Your task to perform on an android device: Do I have any events this weekend? Image 0: 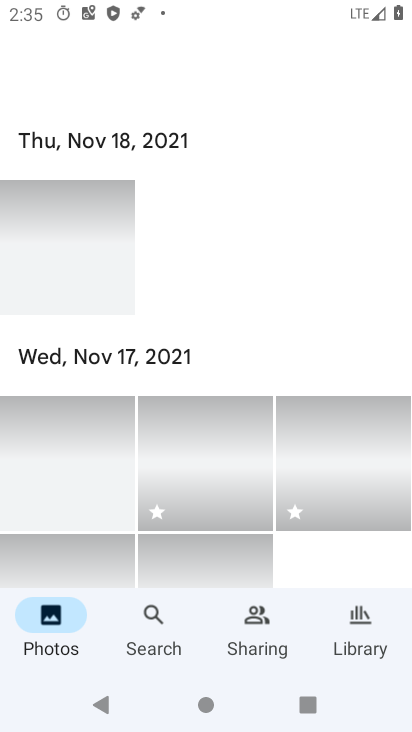
Step 0: drag from (246, 595) to (289, 142)
Your task to perform on an android device: Do I have any events this weekend? Image 1: 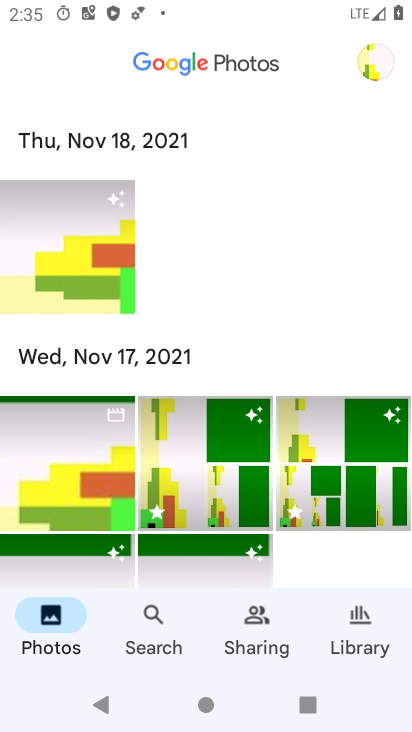
Step 1: press home button
Your task to perform on an android device: Do I have any events this weekend? Image 2: 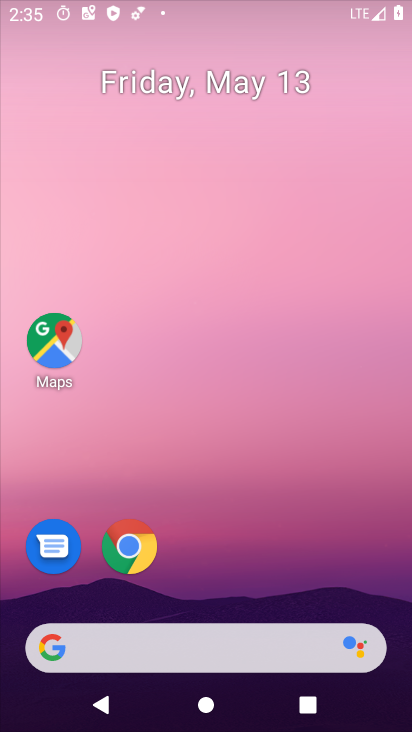
Step 2: drag from (239, 486) to (294, 101)
Your task to perform on an android device: Do I have any events this weekend? Image 3: 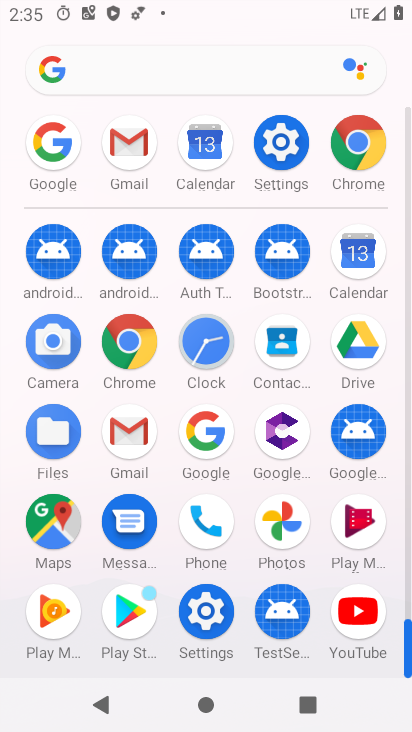
Step 3: click (374, 266)
Your task to perform on an android device: Do I have any events this weekend? Image 4: 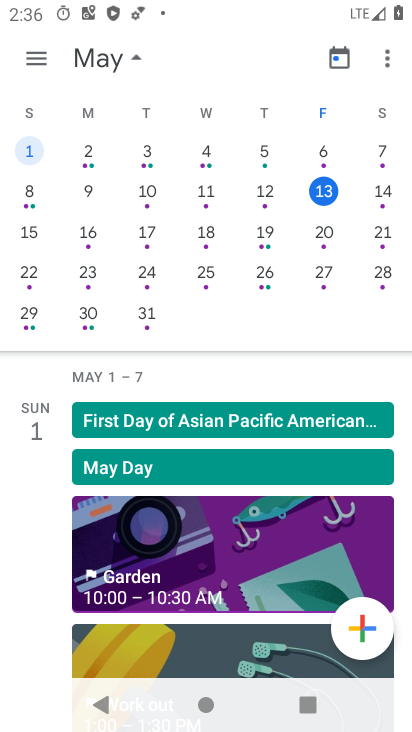
Step 4: click (380, 209)
Your task to perform on an android device: Do I have any events this weekend? Image 5: 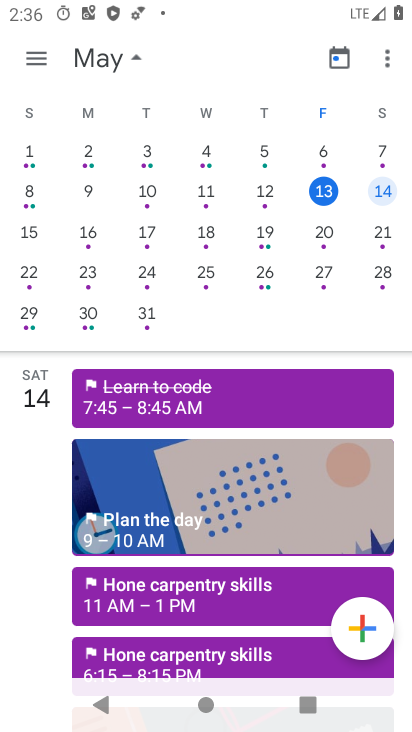
Step 5: task complete